Your task to perform on an android device: turn off improve location accuracy Image 0: 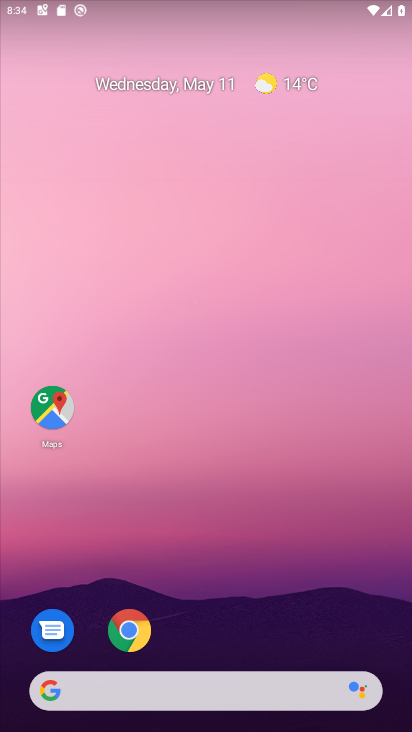
Step 0: press home button
Your task to perform on an android device: turn off improve location accuracy Image 1: 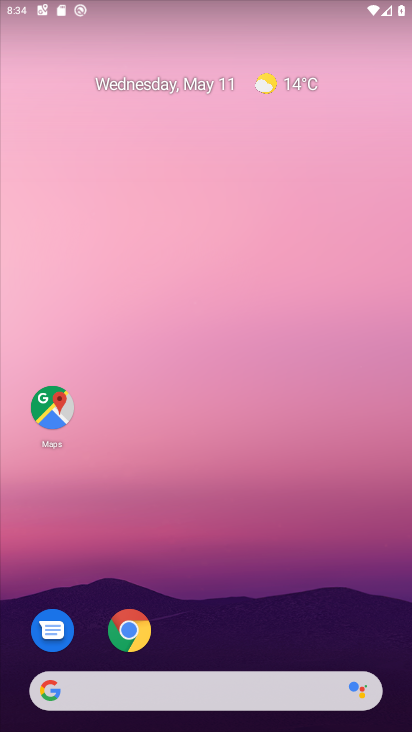
Step 1: click (218, 158)
Your task to perform on an android device: turn off improve location accuracy Image 2: 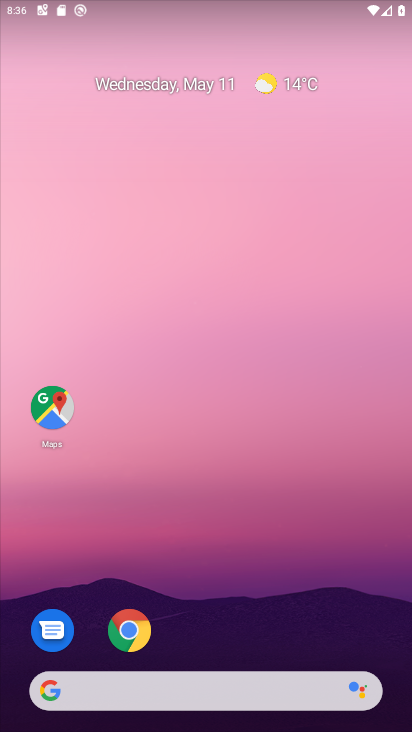
Step 2: click (51, 309)
Your task to perform on an android device: turn off improve location accuracy Image 3: 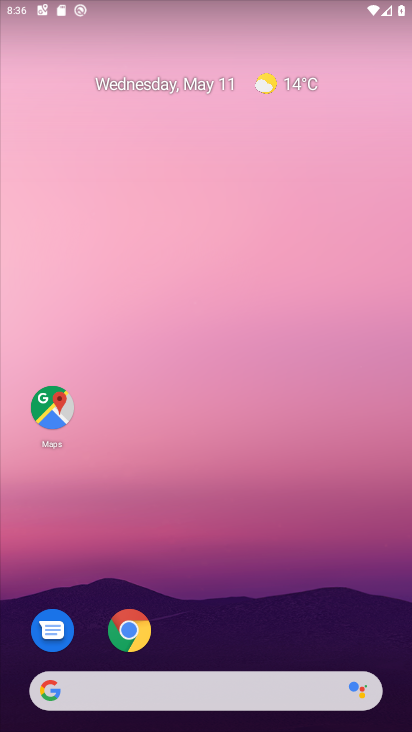
Step 3: drag from (161, 485) to (325, 210)
Your task to perform on an android device: turn off improve location accuracy Image 4: 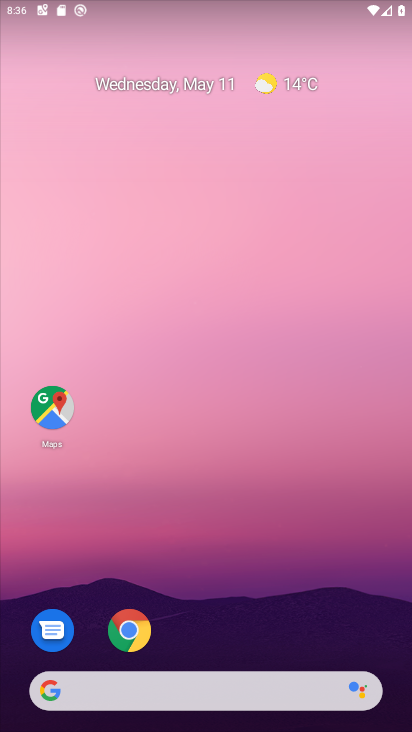
Step 4: drag from (69, 585) to (278, 212)
Your task to perform on an android device: turn off improve location accuracy Image 5: 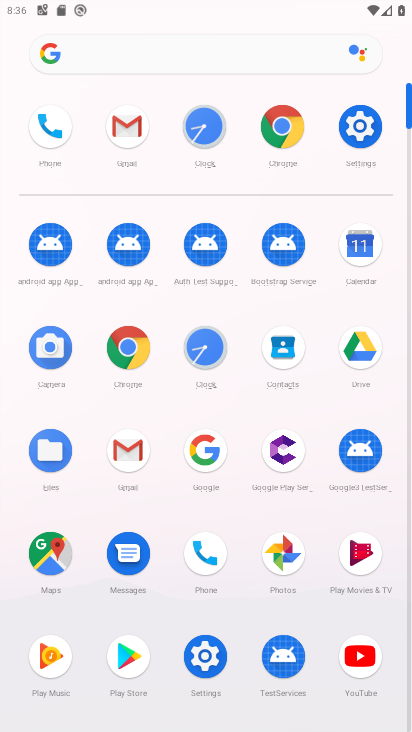
Step 5: click (206, 657)
Your task to perform on an android device: turn off improve location accuracy Image 6: 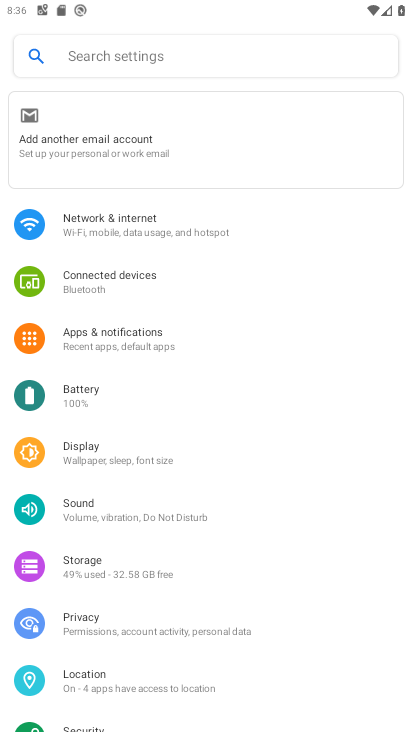
Step 6: click (72, 681)
Your task to perform on an android device: turn off improve location accuracy Image 7: 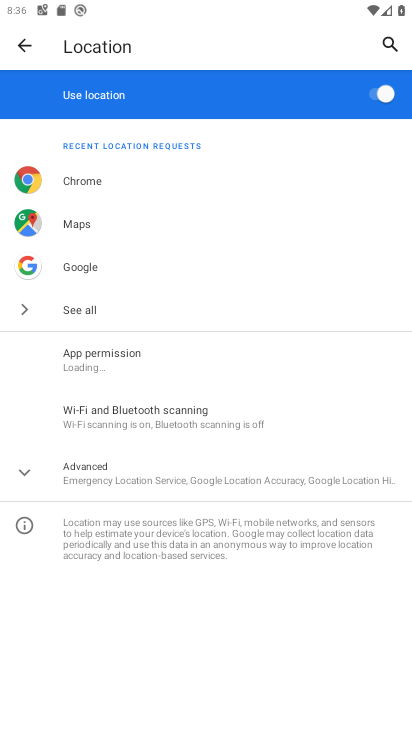
Step 7: click (108, 468)
Your task to perform on an android device: turn off improve location accuracy Image 8: 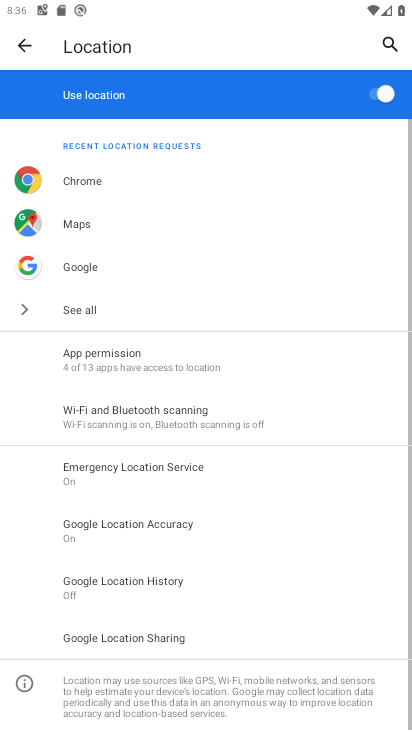
Step 8: click (181, 527)
Your task to perform on an android device: turn off improve location accuracy Image 9: 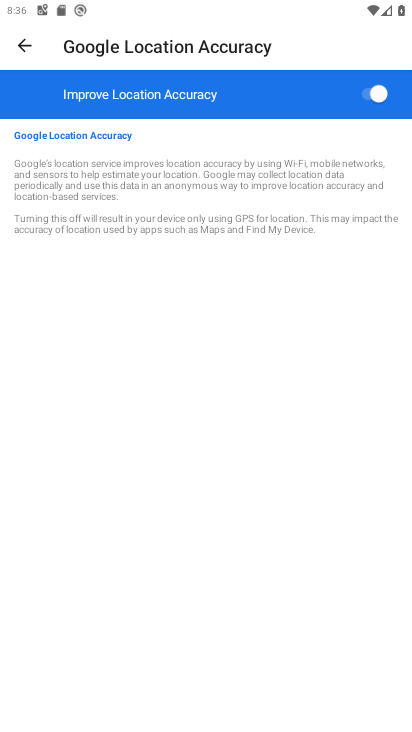
Step 9: click (379, 104)
Your task to perform on an android device: turn off improve location accuracy Image 10: 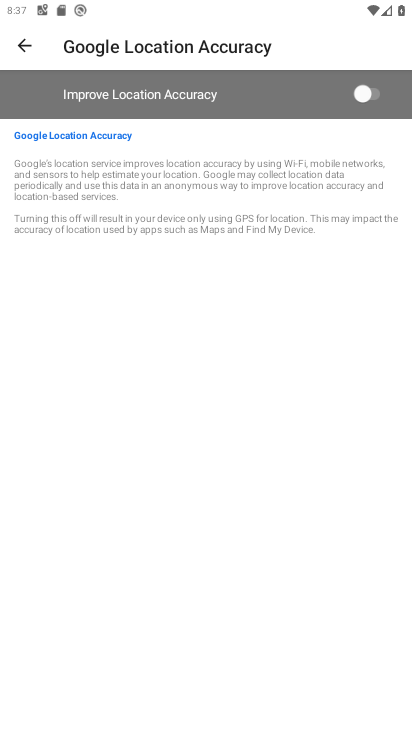
Step 10: task complete